Your task to perform on an android device: turn on notifications settings in the gmail app Image 0: 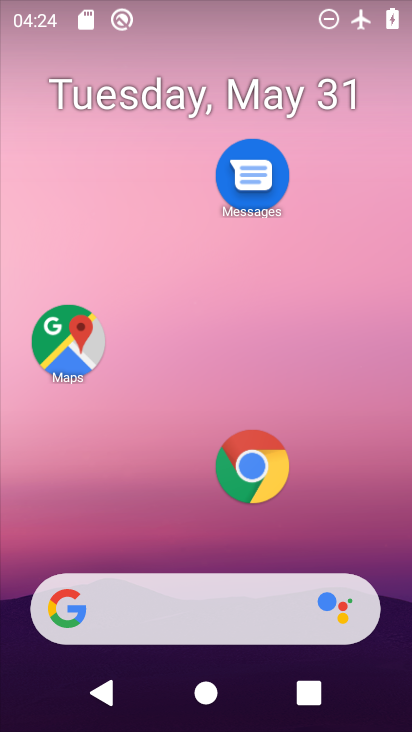
Step 0: drag from (82, 503) to (176, 76)
Your task to perform on an android device: turn on notifications settings in the gmail app Image 1: 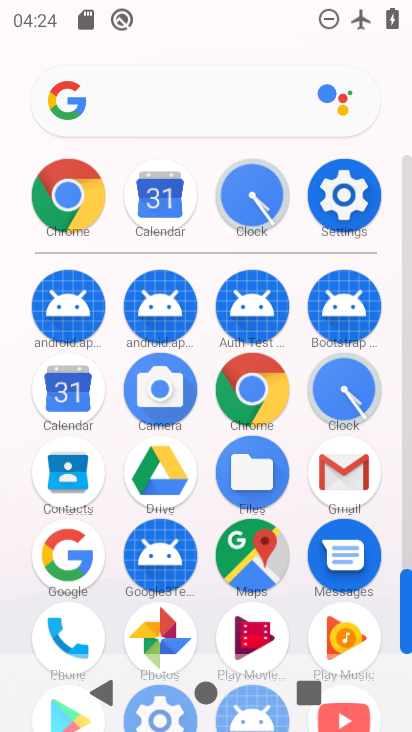
Step 1: click (344, 473)
Your task to perform on an android device: turn on notifications settings in the gmail app Image 2: 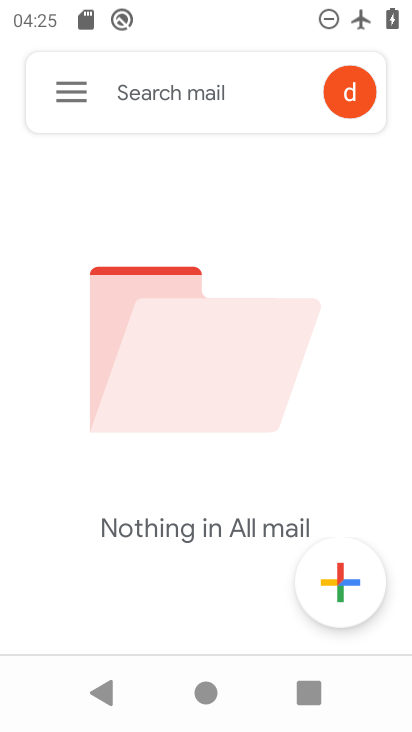
Step 2: click (58, 84)
Your task to perform on an android device: turn on notifications settings in the gmail app Image 3: 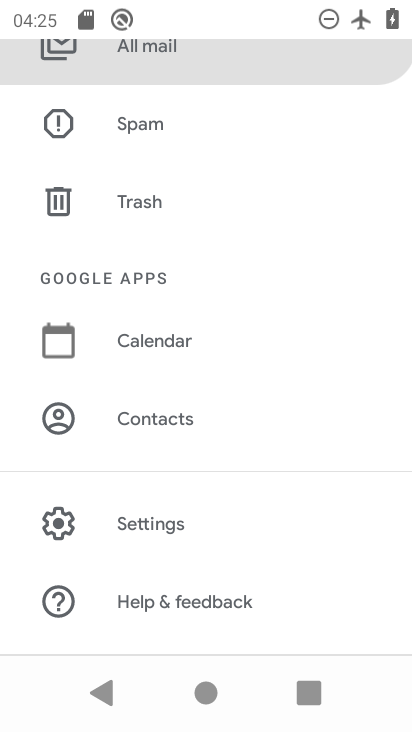
Step 3: click (155, 536)
Your task to perform on an android device: turn on notifications settings in the gmail app Image 4: 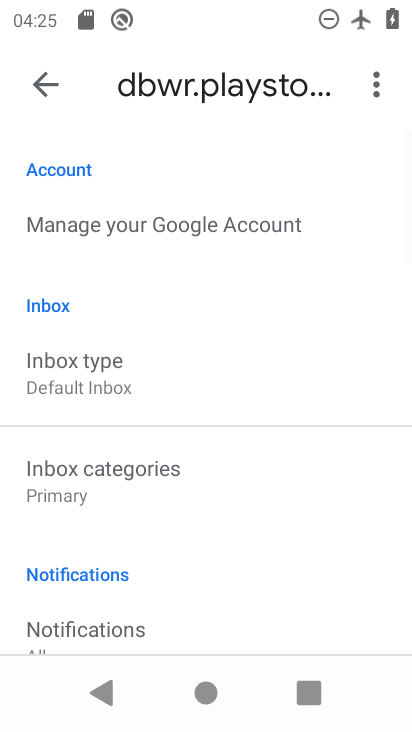
Step 4: drag from (112, 581) to (269, 195)
Your task to perform on an android device: turn on notifications settings in the gmail app Image 5: 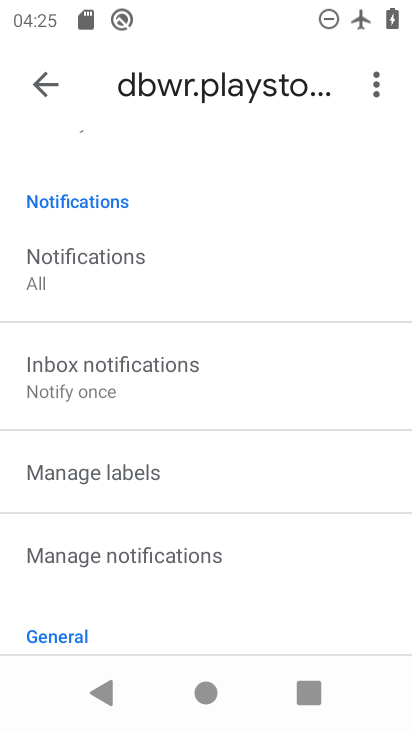
Step 5: click (98, 550)
Your task to perform on an android device: turn on notifications settings in the gmail app Image 6: 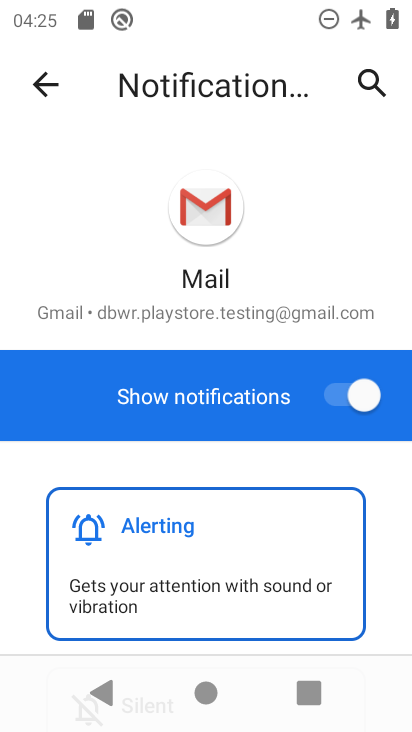
Step 6: task complete